Your task to perform on an android device: Go to Google Image 0: 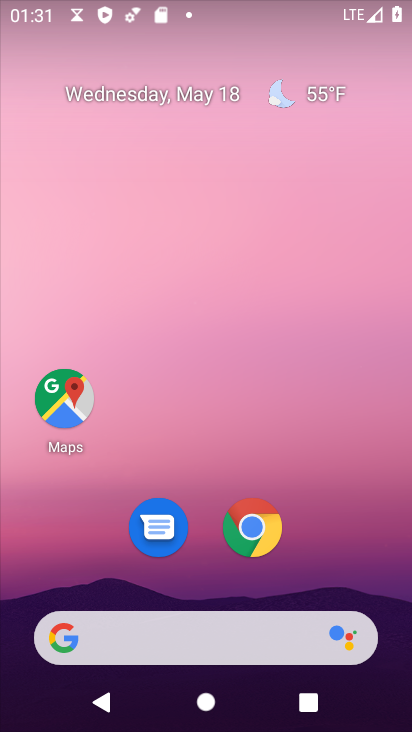
Step 0: drag from (335, 444) to (289, 89)
Your task to perform on an android device: Go to Google Image 1: 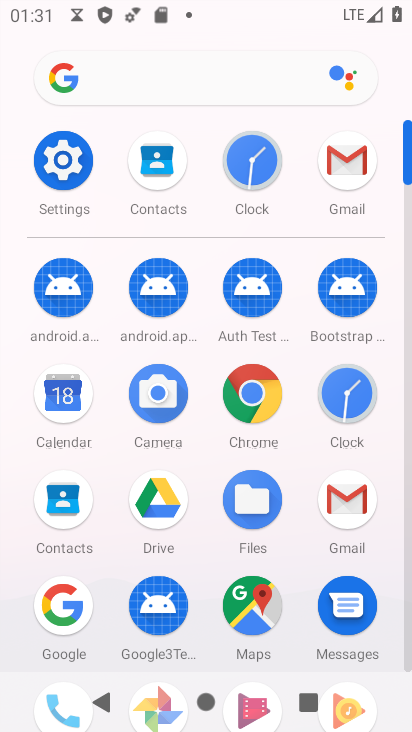
Step 1: click (52, 606)
Your task to perform on an android device: Go to Google Image 2: 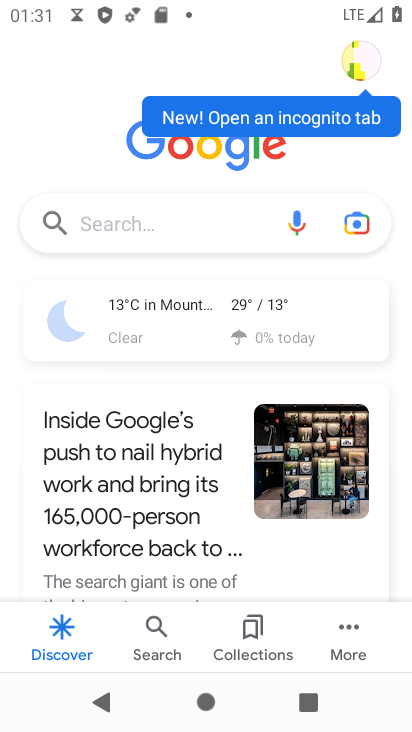
Step 2: task complete